Your task to perform on an android device: Open location settings Image 0: 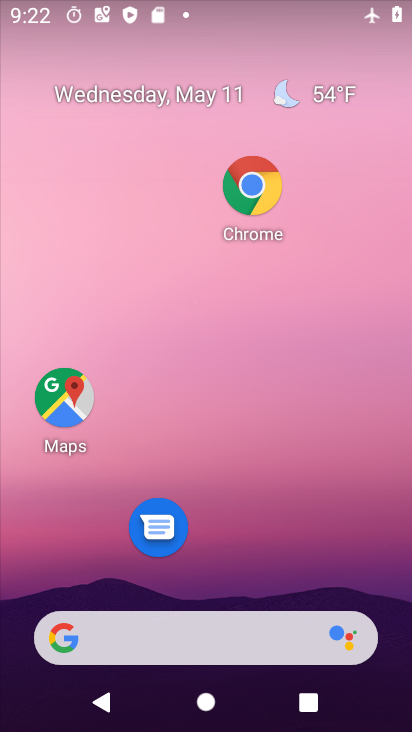
Step 0: drag from (248, 545) to (286, 64)
Your task to perform on an android device: Open location settings Image 1: 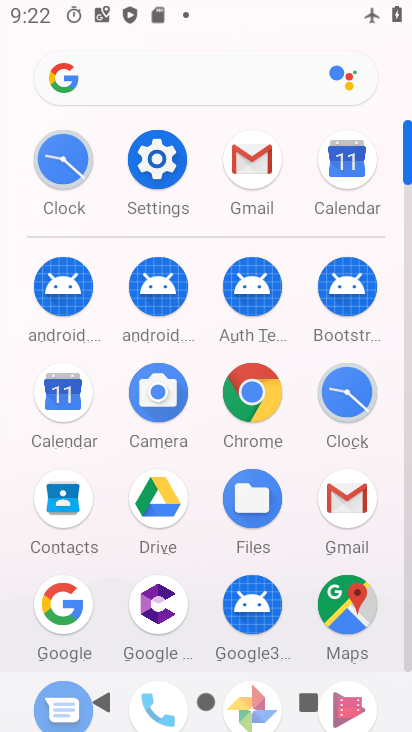
Step 1: click (162, 162)
Your task to perform on an android device: Open location settings Image 2: 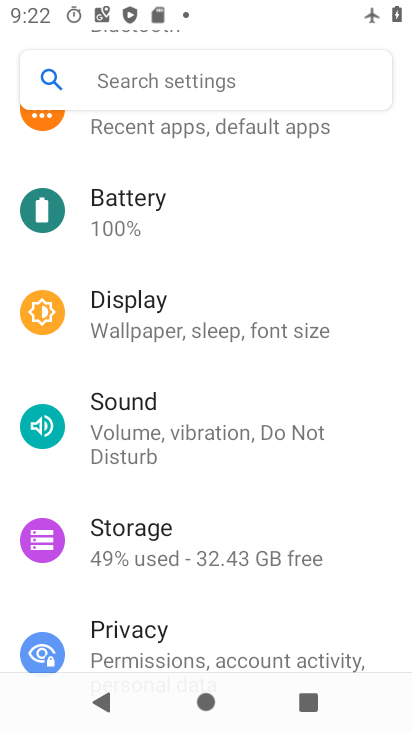
Step 2: drag from (211, 578) to (213, 213)
Your task to perform on an android device: Open location settings Image 3: 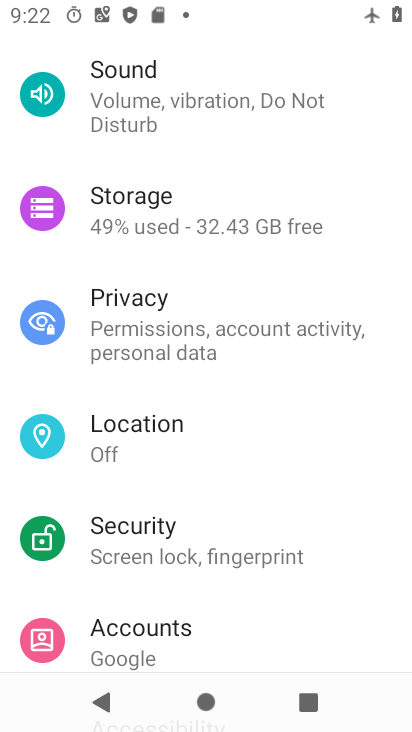
Step 3: click (152, 440)
Your task to perform on an android device: Open location settings Image 4: 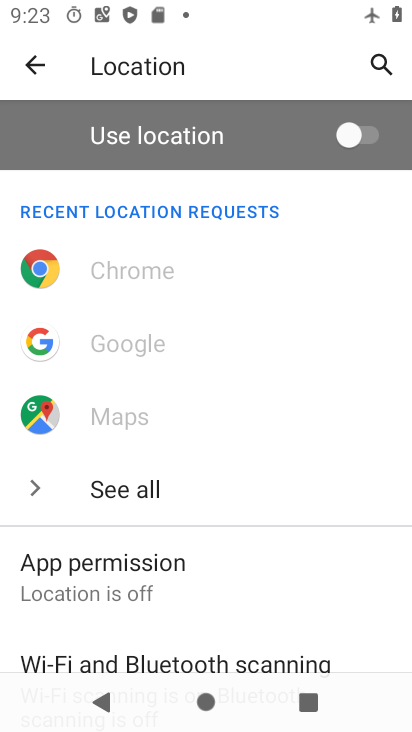
Step 4: task complete